Your task to perform on an android device: Open eBay Image 0: 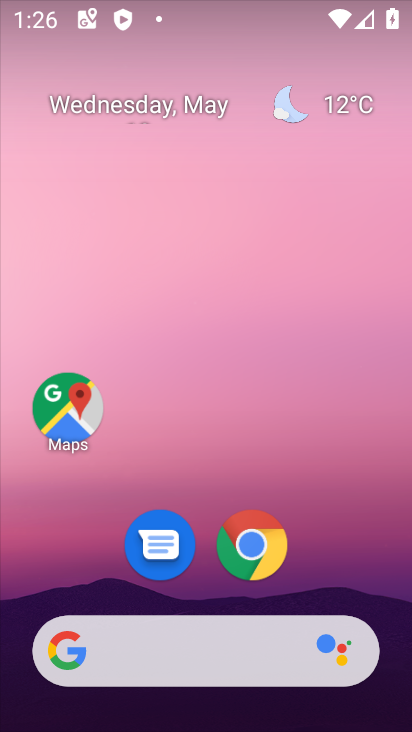
Step 0: click (254, 540)
Your task to perform on an android device: Open eBay Image 1: 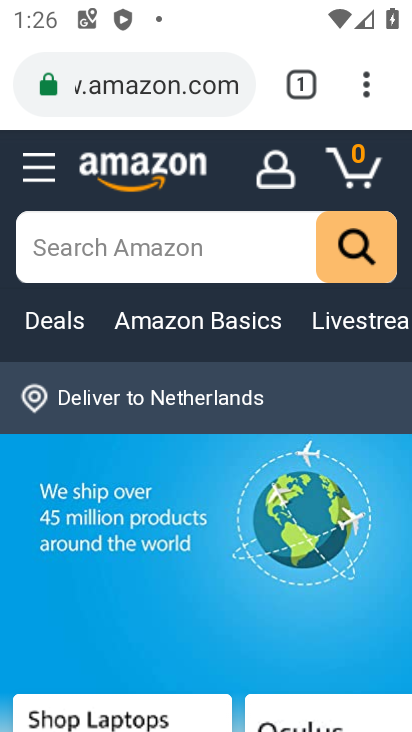
Step 1: click (301, 91)
Your task to perform on an android device: Open eBay Image 2: 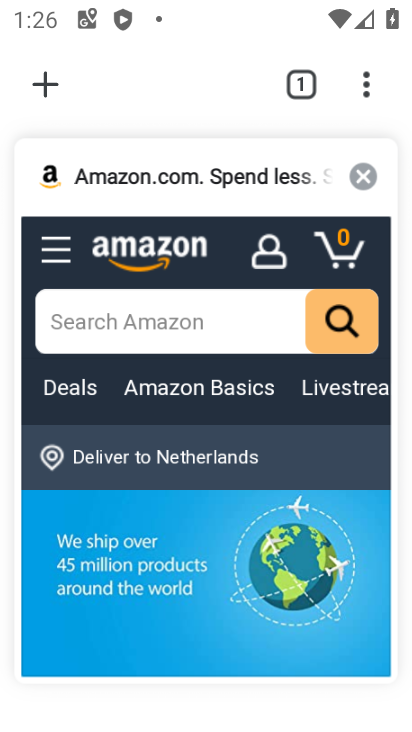
Step 2: click (361, 176)
Your task to perform on an android device: Open eBay Image 3: 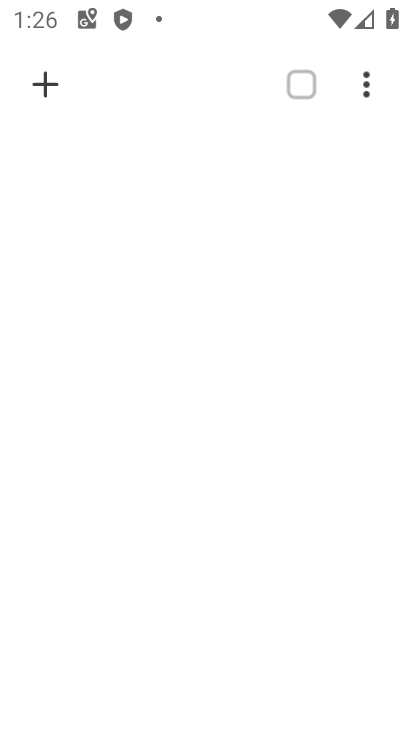
Step 3: click (53, 76)
Your task to perform on an android device: Open eBay Image 4: 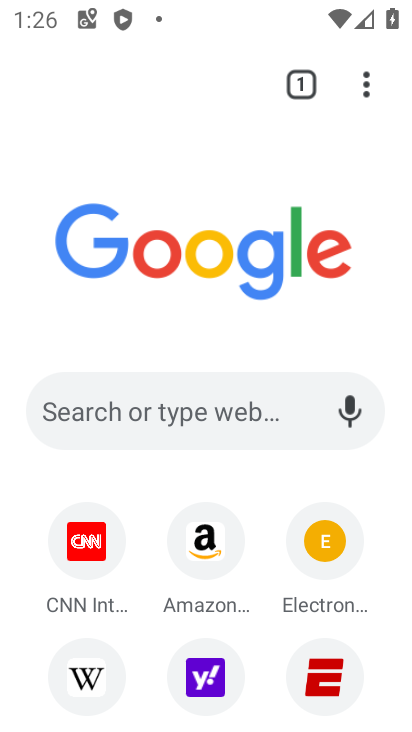
Step 4: drag from (272, 467) to (267, 261)
Your task to perform on an android device: Open eBay Image 5: 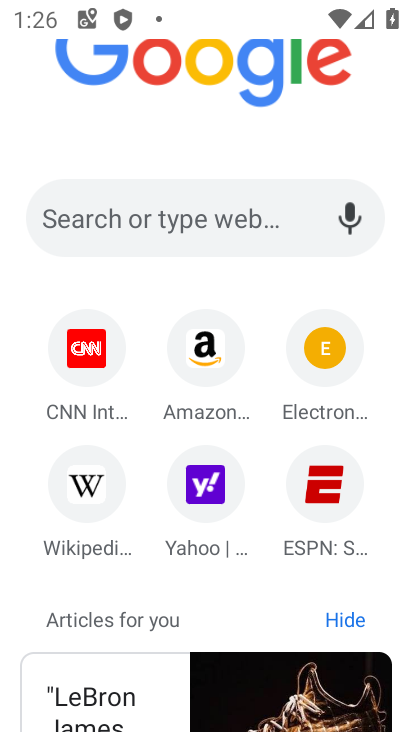
Step 5: click (237, 237)
Your task to perform on an android device: Open eBay Image 6: 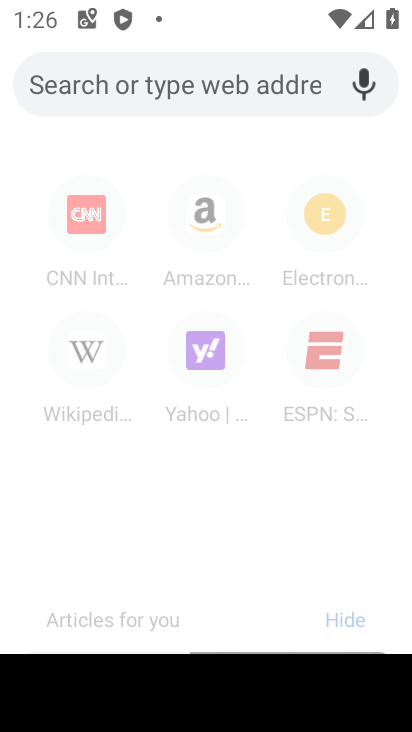
Step 6: type "ebay.com"
Your task to perform on an android device: Open eBay Image 7: 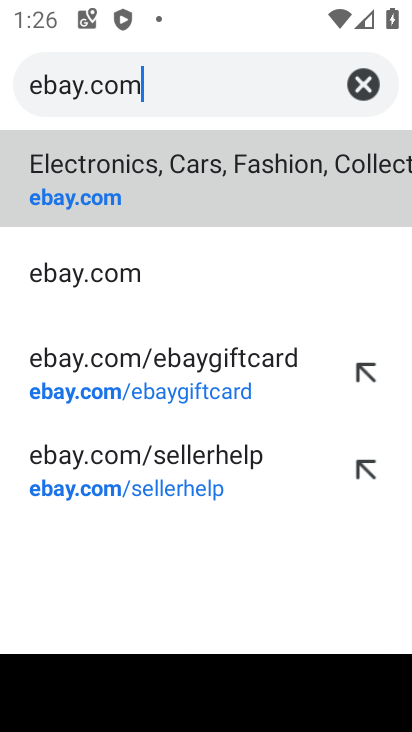
Step 7: click (213, 161)
Your task to perform on an android device: Open eBay Image 8: 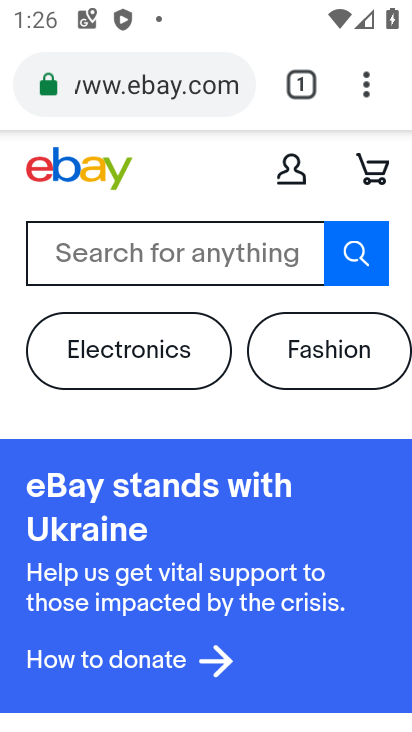
Step 8: task complete